Your task to perform on an android device: open a bookmark in the chrome app Image 0: 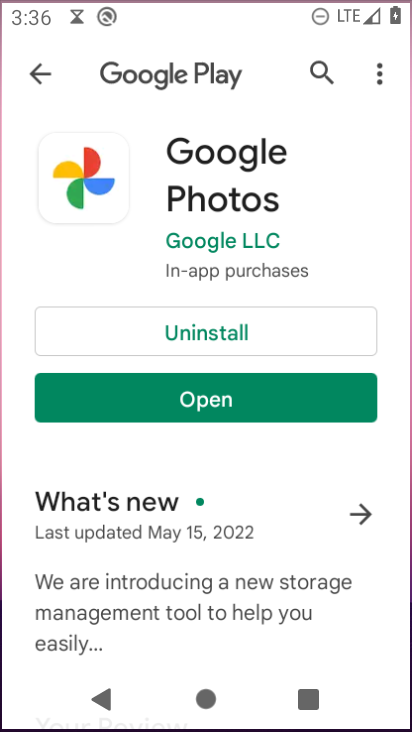
Step 0: press home button
Your task to perform on an android device: open a bookmark in the chrome app Image 1: 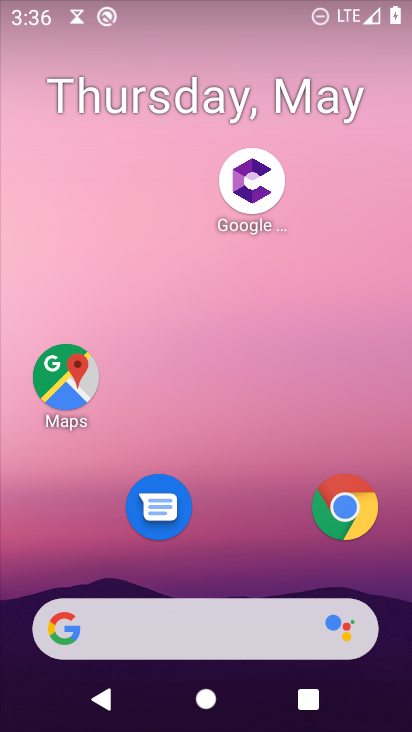
Step 1: click (349, 495)
Your task to perform on an android device: open a bookmark in the chrome app Image 2: 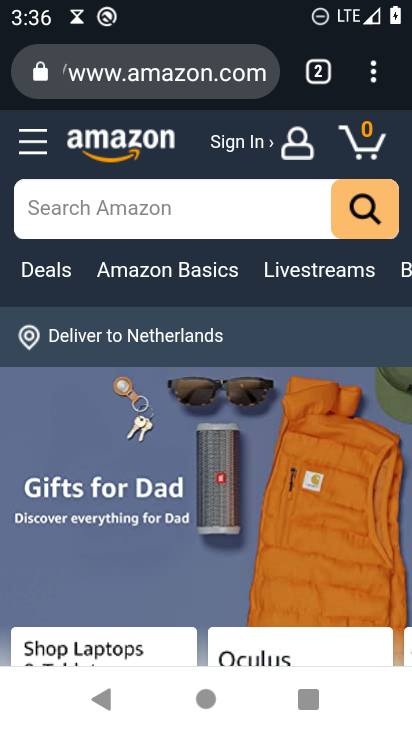
Step 2: task complete